Your task to perform on an android device: Show me productivity apps on the Play Store Image 0: 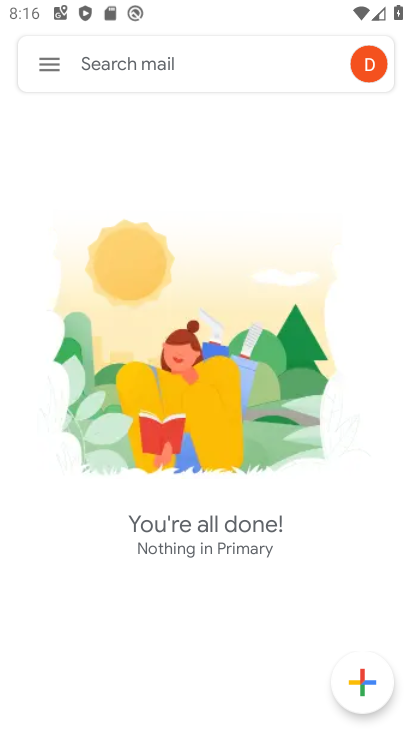
Step 0: press home button
Your task to perform on an android device: Show me productivity apps on the Play Store Image 1: 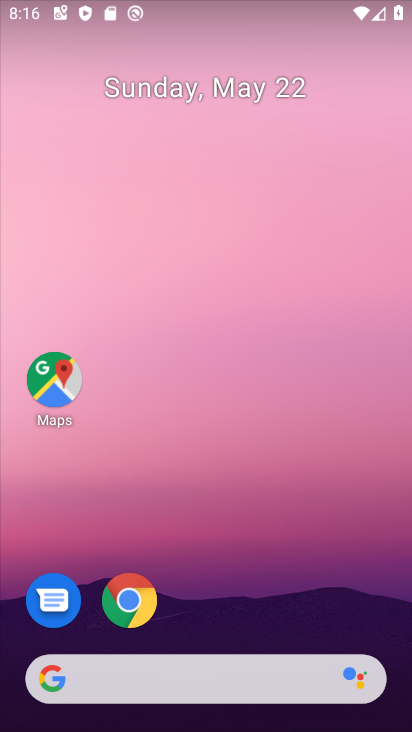
Step 1: drag from (271, 632) to (277, 181)
Your task to perform on an android device: Show me productivity apps on the Play Store Image 2: 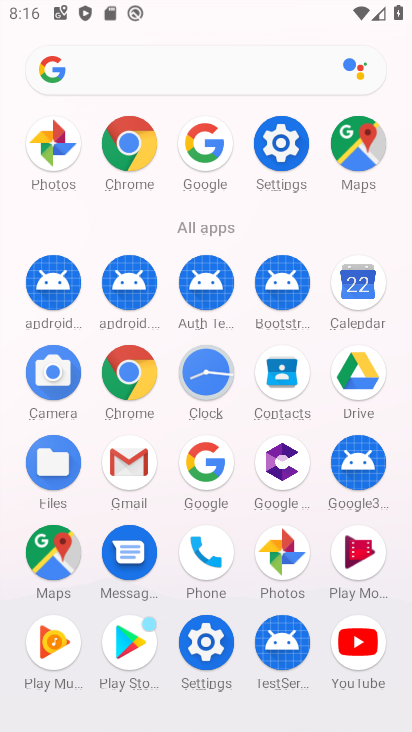
Step 2: click (113, 671)
Your task to perform on an android device: Show me productivity apps on the Play Store Image 3: 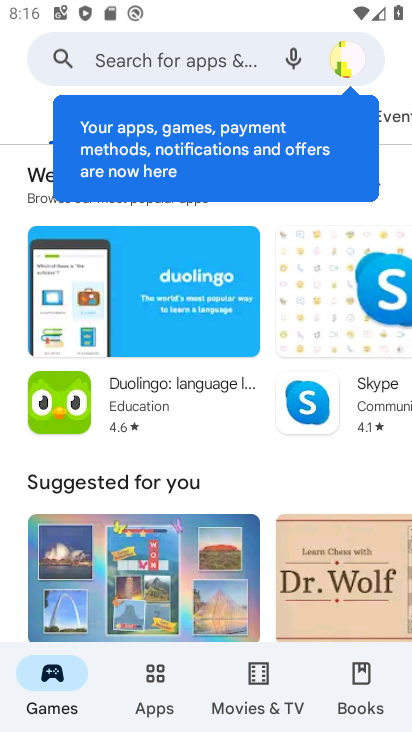
Step 3: click (197, 59)
Your task to perform on an android device: Show me productivity apps on the Play Store Image 4: 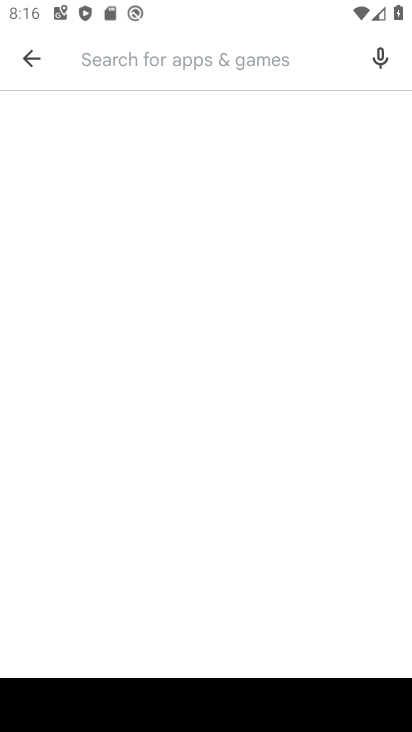
Step 4: type "productivity aaps"
Your task to perform on an android device: Show me productivity apps on the Play Store Image 5: 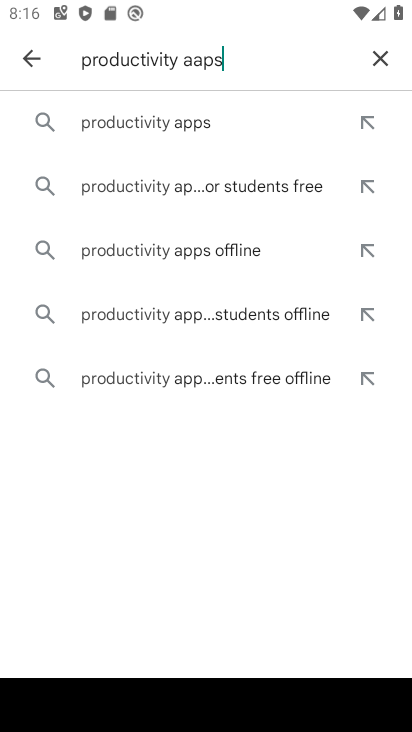
Step 5: click (234, 119)
Your task to perform on an android device: Show me productivity apps on the Play Store Image 6: 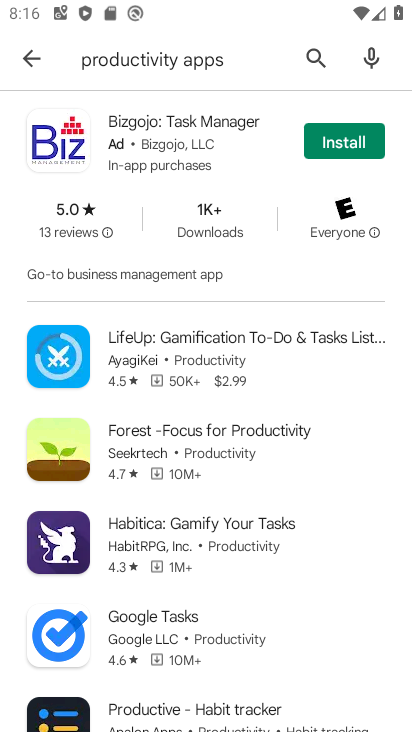
Step 6: task complete